Your task to perform on an android device: turn on improve location accuracy Image 0: 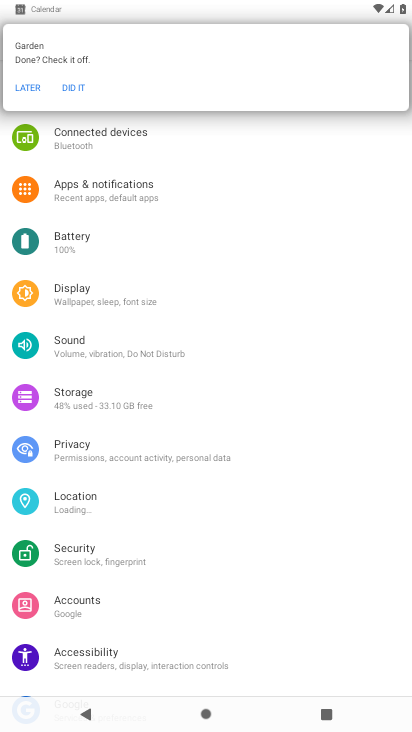
Step 0: click (69, 489)
Your task to perform on an android device: turn on improve location accuracy Image 1: 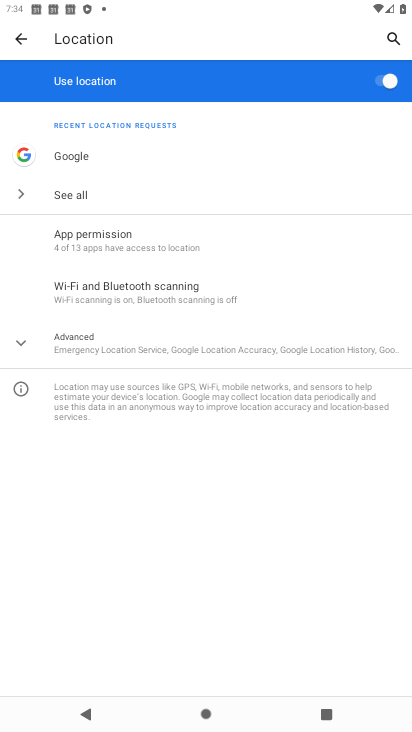
Step 1: click (57, 327)
Your task to perform on an android device: turn on improve location accuracy Image 2: 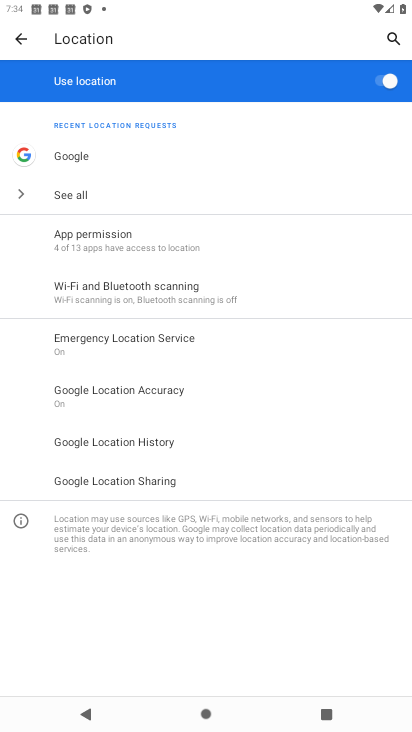
Step 2: click (145, 392)
Your task to perform on an android device: turn on improve location accuracy Image 3: 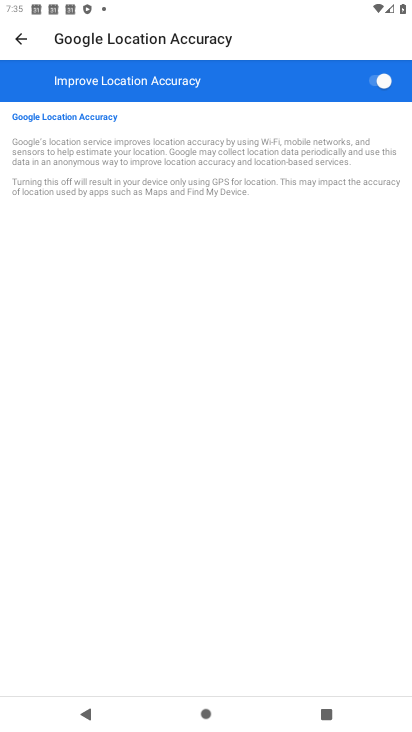
Step 3: task complete